Your task to perform on an android device: turn off airplane mode Image 0: 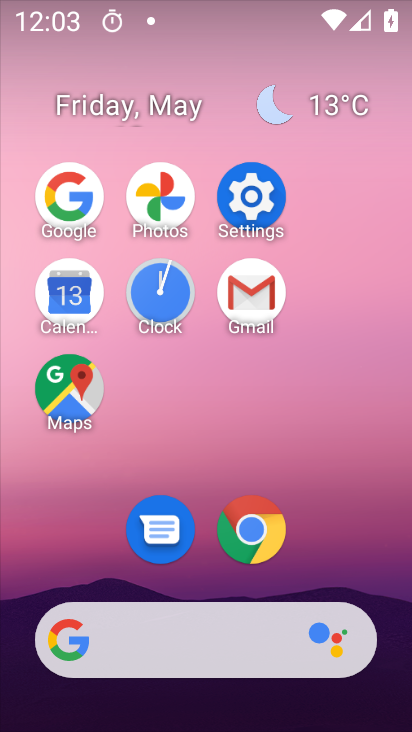
Step 0: click (263, 203)
Your task to perform on an android device: turn off airplane mode Image 1: 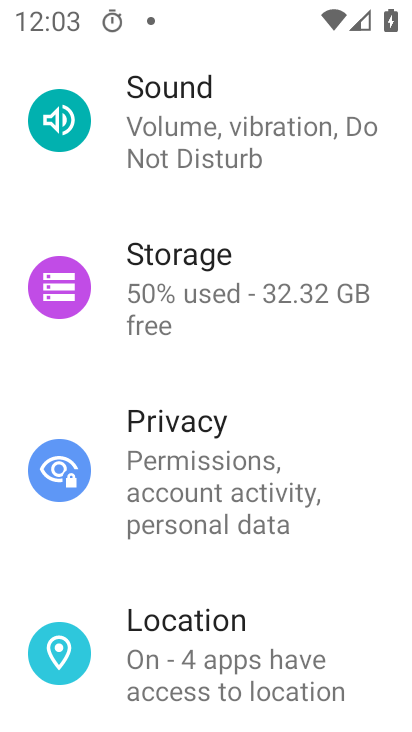
Step 1: drag from (305, 281) to (263, 673)
Your task to perform on an android device: turn off airplane mode Image 2: 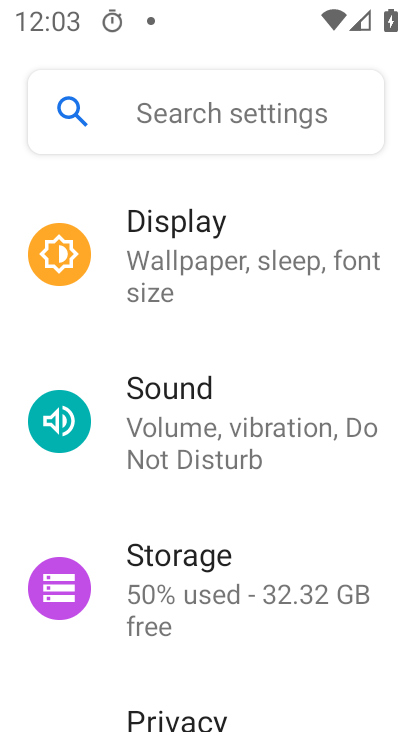
Step 2: drag from (288, 201) to (220, 645)
Your task to perform on an android device: turn off airplane mode Image 3: 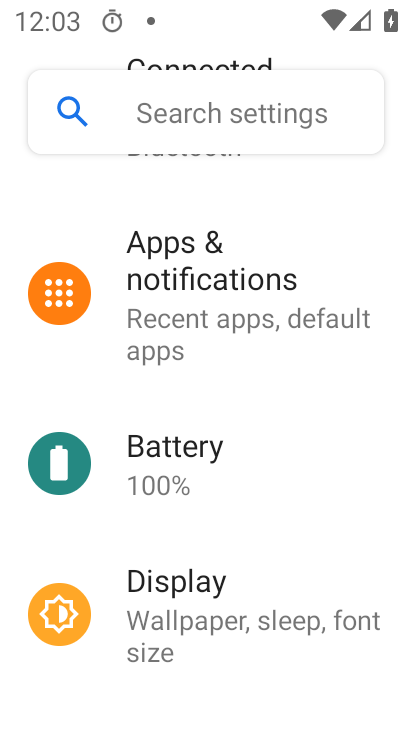
Step 3: drag from (306, 199) to (290, 582)
Your task to perform on an android device: turn off airplane mode Image 4: 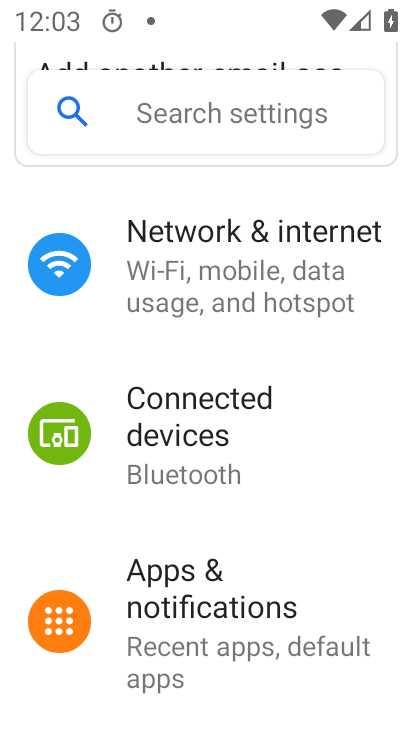
Step 4: click (342, 256)
Your task to perform on an android device: turn off airplane mode Image 5: 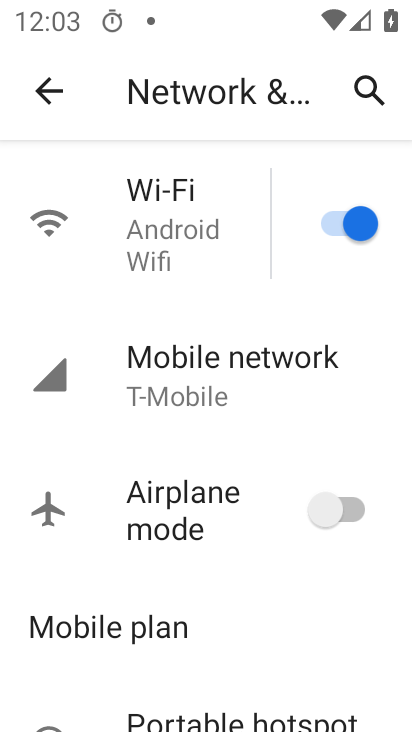
Step 5: task complete